Your task to perform on an android device: toggle translation in the chrome app Image 0: 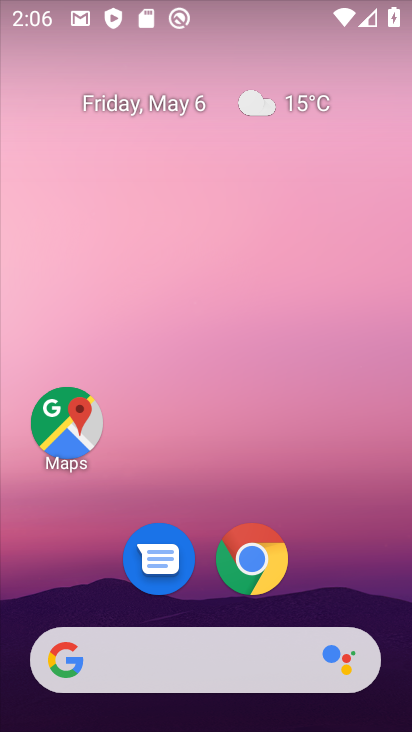
Step 0: click (249, 550)
Your task to perform on an android device: toggle translation in the chrome app Image 1: 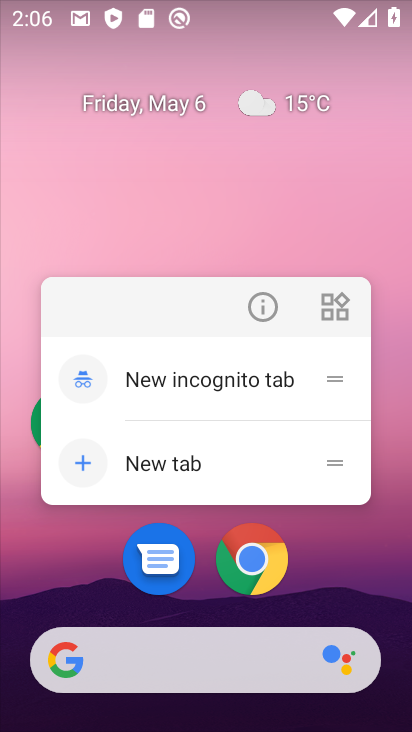
Step 1: click (247, 552)
Your task to perform on an android device: toggle translation in the chrome app Image 2: 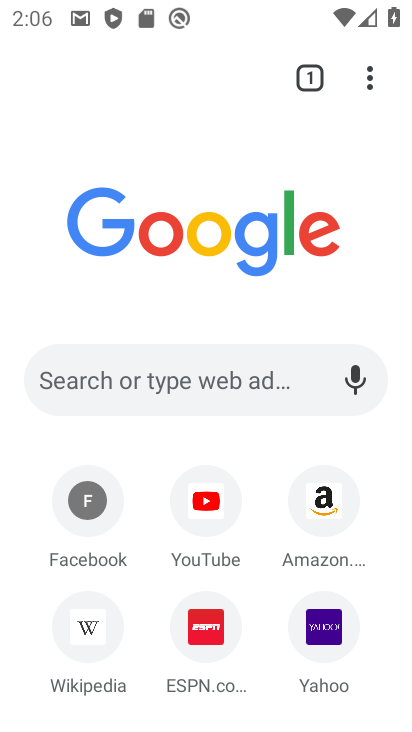
Step 2: click (368, 80)
Your task to perform on an android device: toggle translation in the chrome app Image 3: 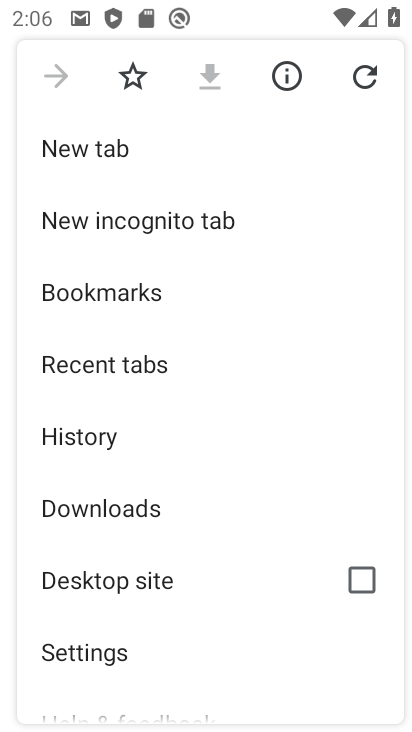
Step 3: drag from (176, 623) to (205, 194)
Your task to perform on an android device: toggle translation in the chrome app Image 4: 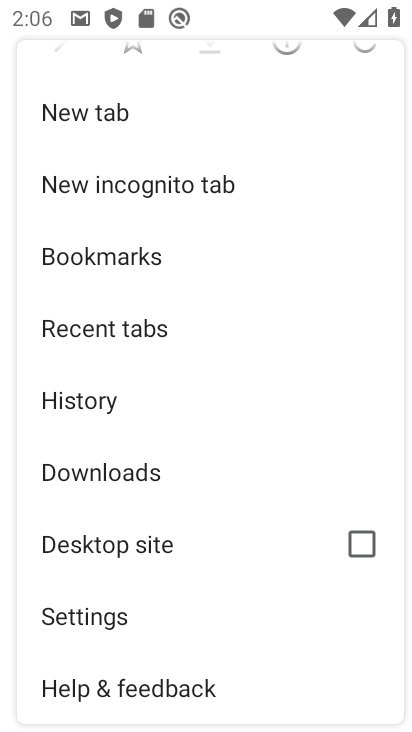
Step 4: drag from (172, 610) to (164, 166)
Your task to perform on an android device: toggle translation in the chrome app Image 5: 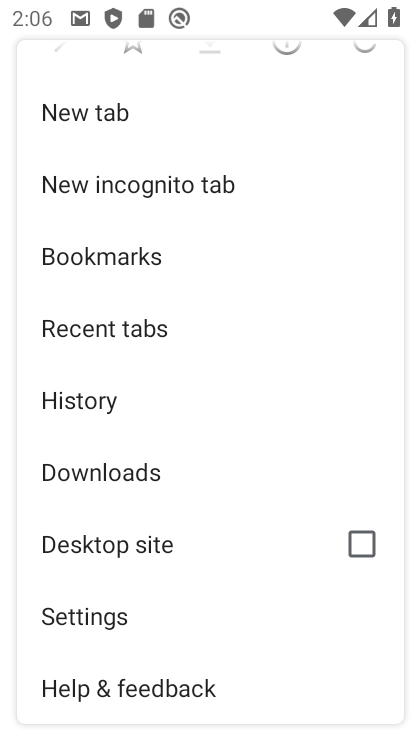
Step 5: click (139, 610)
Your task to perform on an android device: toggle translation in the chrome app Image 6: 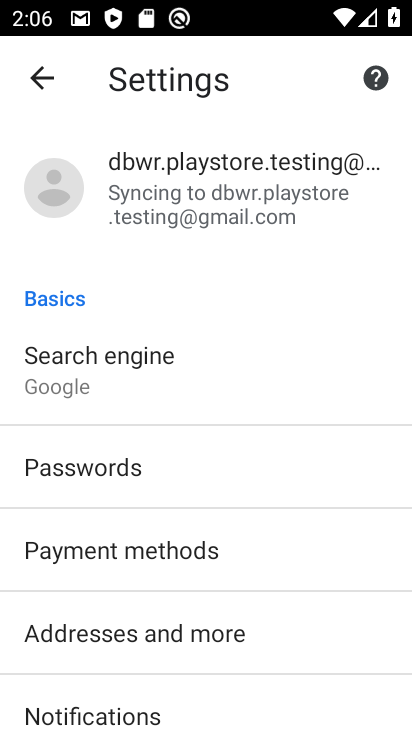
Step 6: drag from (212, 683) to (226, 211)
Your task to perform on an android device: toggle translation in the chrome app Image 7: 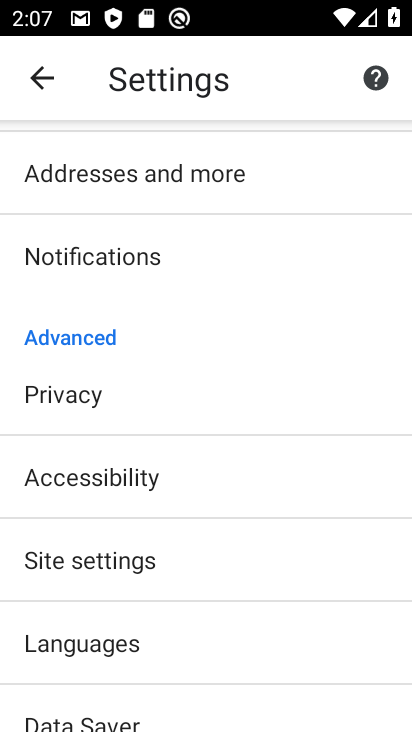
Step 7: click (168, 637)
Your task to perform on an android device: toggle translation in the chrome app Image 8: 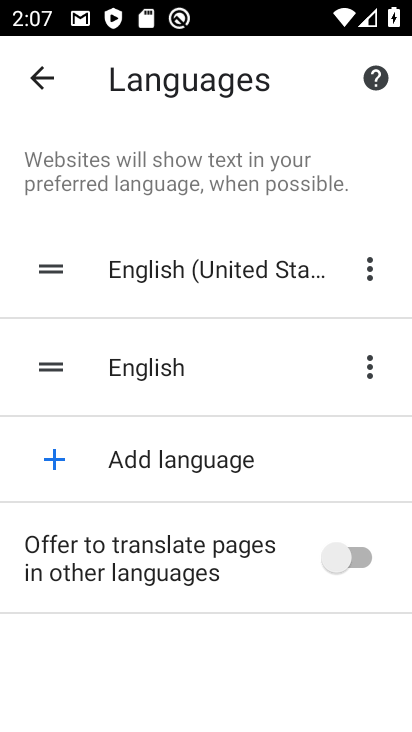
Step 8: click (354, 552)
Your task to perform on an android device: toggle translation in the chrome app Image 9: 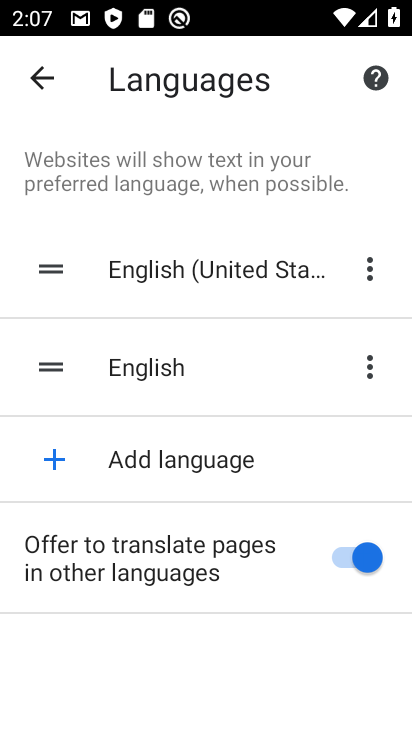
Step 9: task complete